Your task to perform on an android device: Go to accessibility settings Image 0: 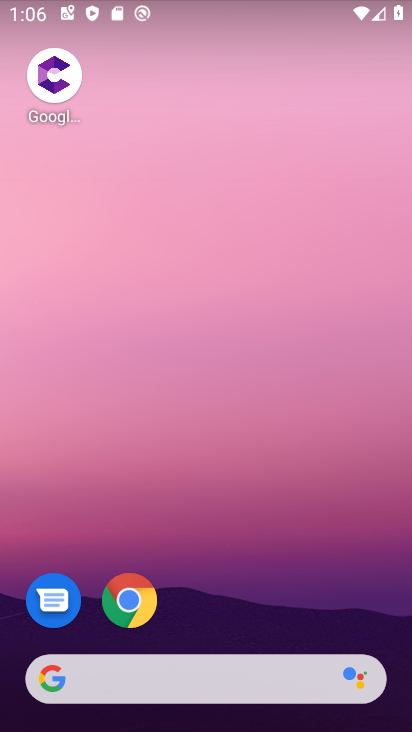
Step 0: drag from (217, 722) to (174, 52)
Your task to perform on an android device: Go to accessibility settings Image 1: 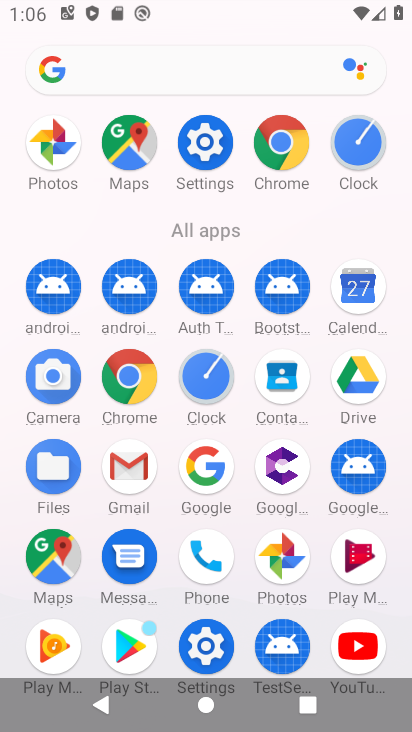
Step 1: click (202, 146)
Your task to perform on an android device: Go to accessibility settings Image 2: 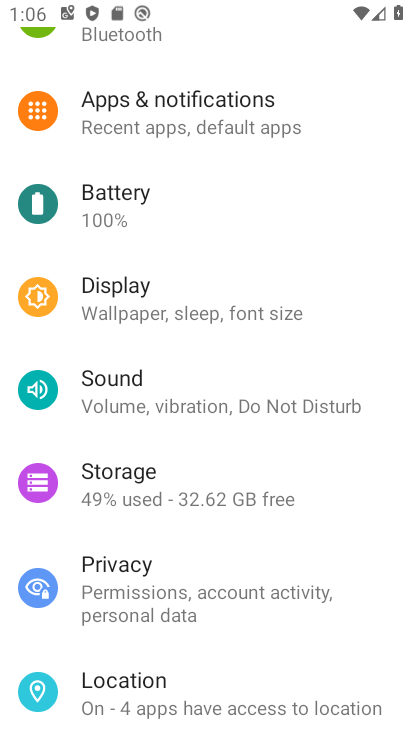
Step 2: drag from (238, 686) to (209, 266)
Your task to perform on an android device: Go to accessibility settings Image 3: 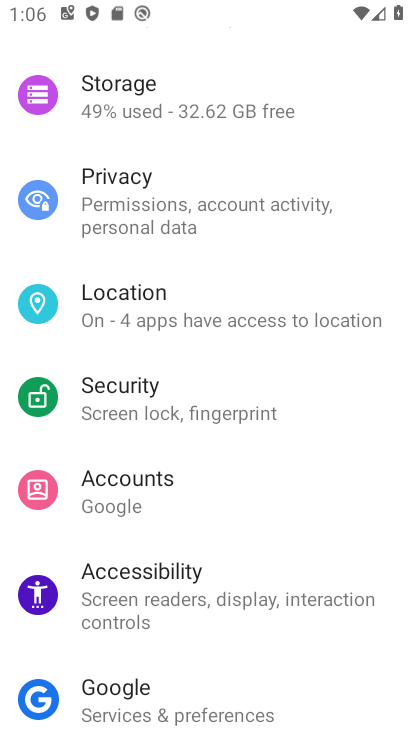
Step 3: click (136, 573)
Your task to perform on an android device: Go to accessibility settings Image 4: 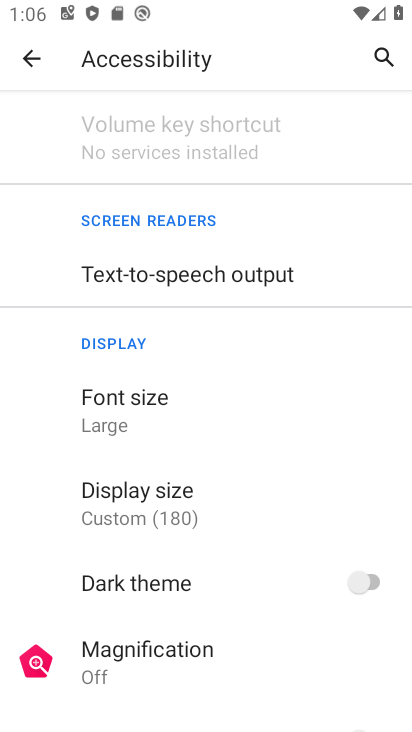
Step 4: task complete